Your task to perform on an android device: delete a single message in the gmail app Image 0: 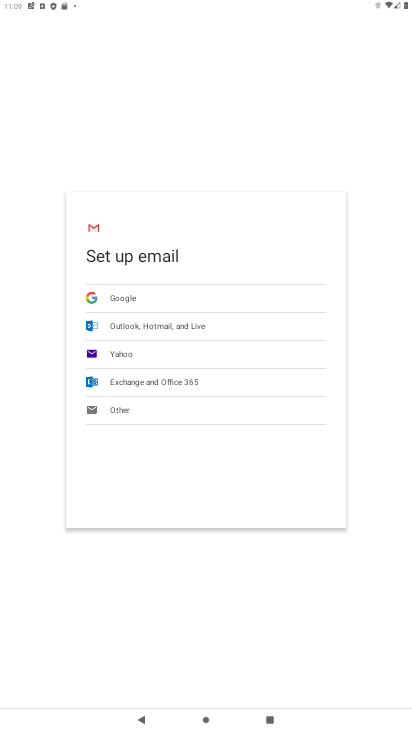
Step 0: press home button
Your task to perform on an android device: delete a single message in the gmail app Image 1: 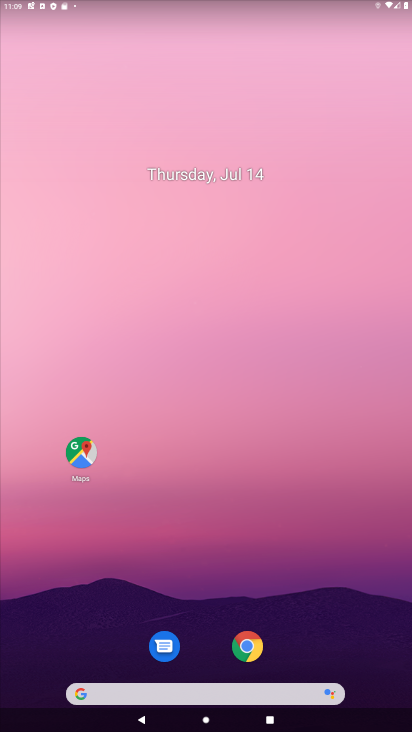
Step 1: drag from (200, 644) to (171, 242)
Your task to perform on an android device: delete a single message in the gmail app Image 2: 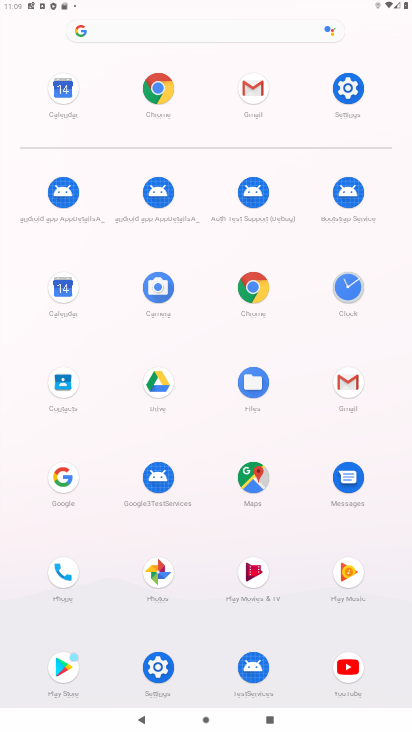
Step 2: click (247, 117)
Your task to perform on an android device: delete a single message in the gmail app Image 3: 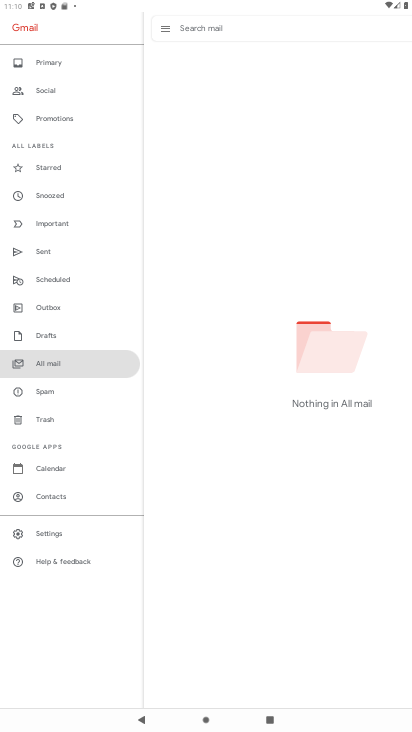
Step 3: task complete